Your task to perform on an android device: uninstall "HBO Max: Stream TV & Movies" Image 0: 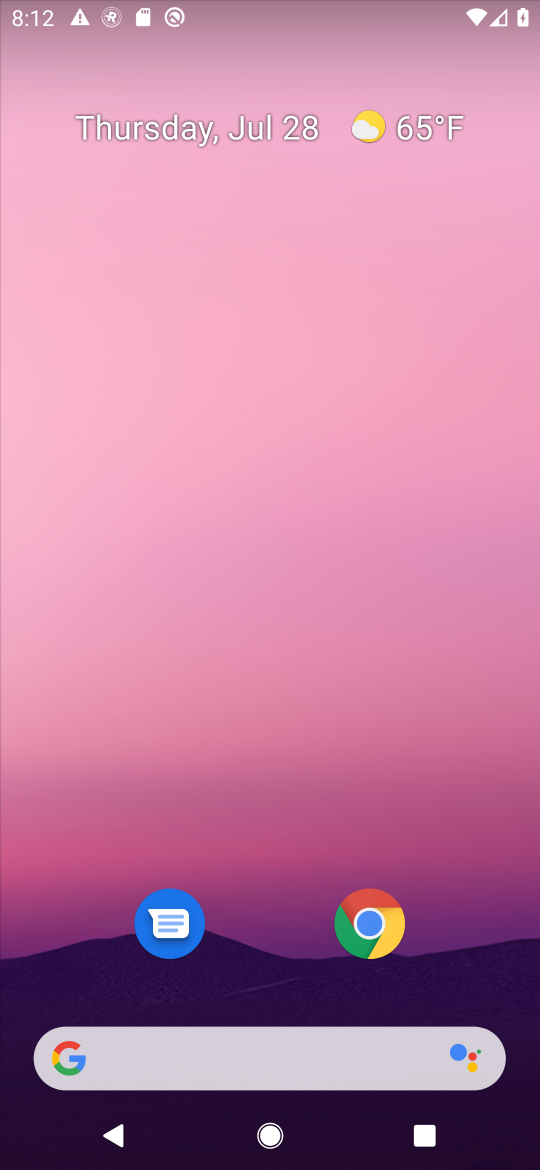
Step 0: drag from (471, 938) to (377, 187)
Your task to perform on an android device: uninstall "HBO Max: Stream TV & Movies" Image 1: 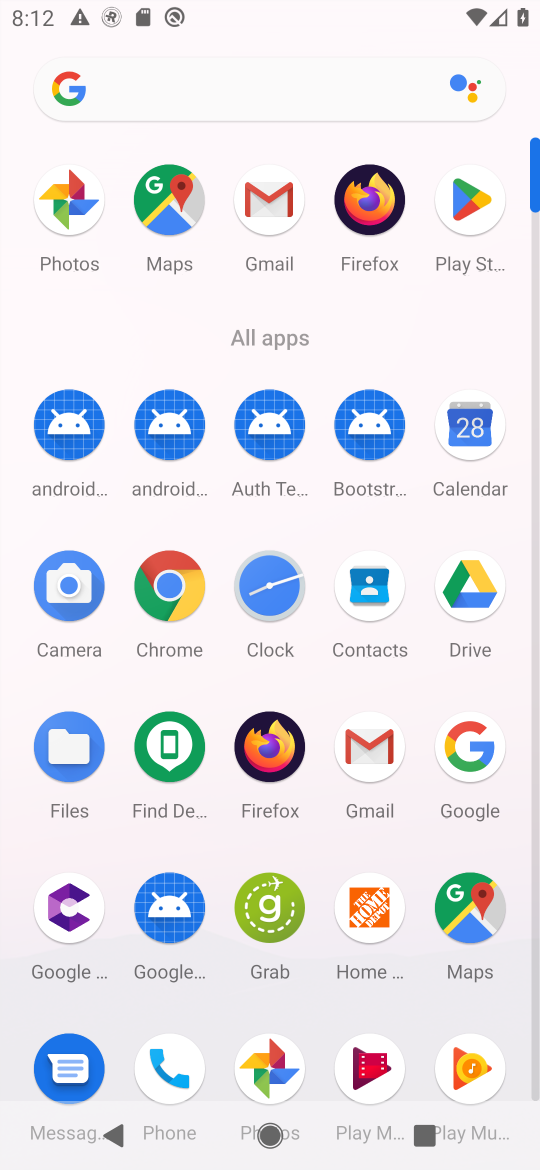
Step 1: click (457, 201)
Your task to perform on an android device: uninstall "HBO Max: Stream TV & Movies" Image 2: 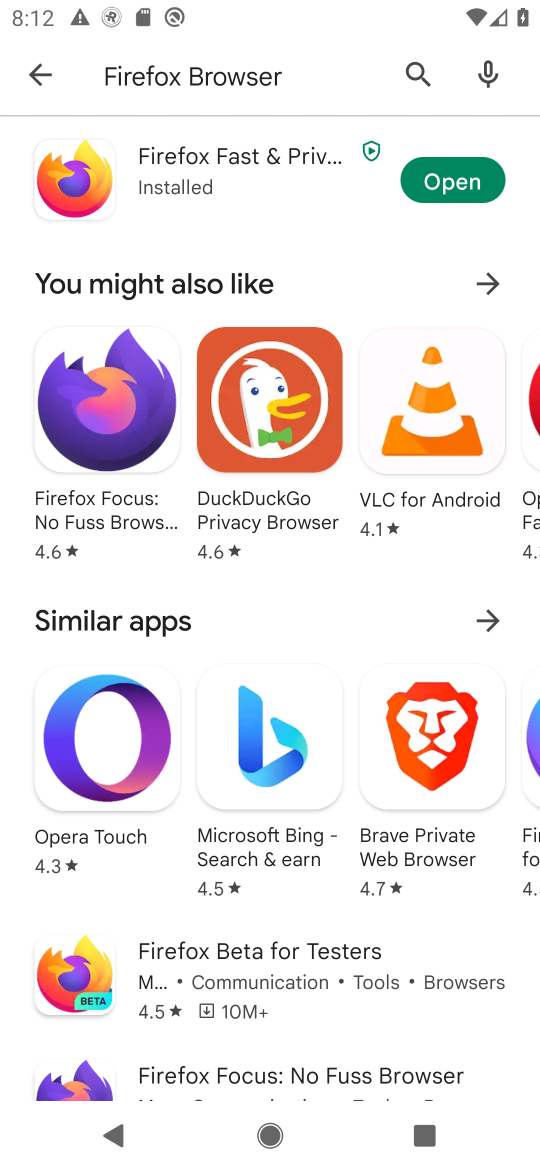
Step 2: click (299, 62)
Your task to perform on an android device: uninstall "HBO Max: Stream TV & Movies" Image 3: 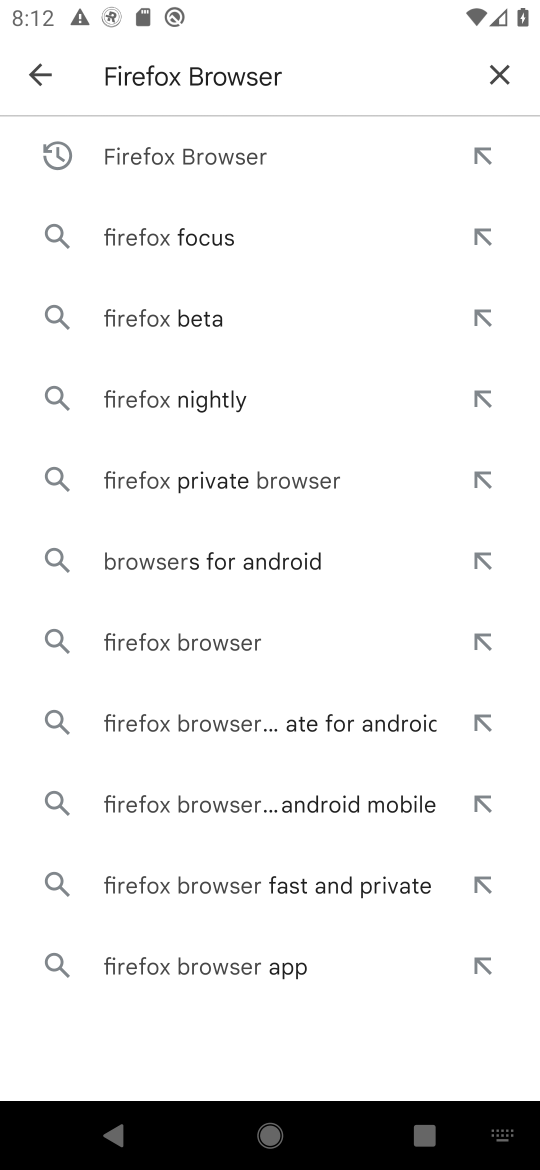
Step 3: click (497, 66)
Your task to perform on an android device: uninstall "HBO Max: Stream TV & Movies" Image 4: 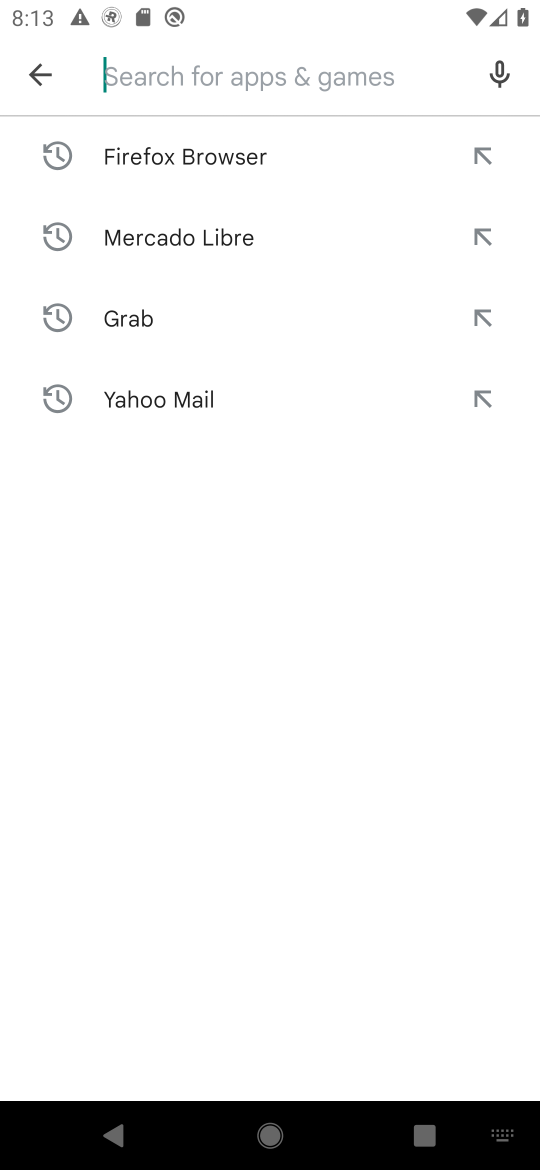
Step 4: type "HBO Max: Stream TV & Movies"
Your task to perform on an android device: uninstall "HBO Max: Stream TV & Movies" Image 5: 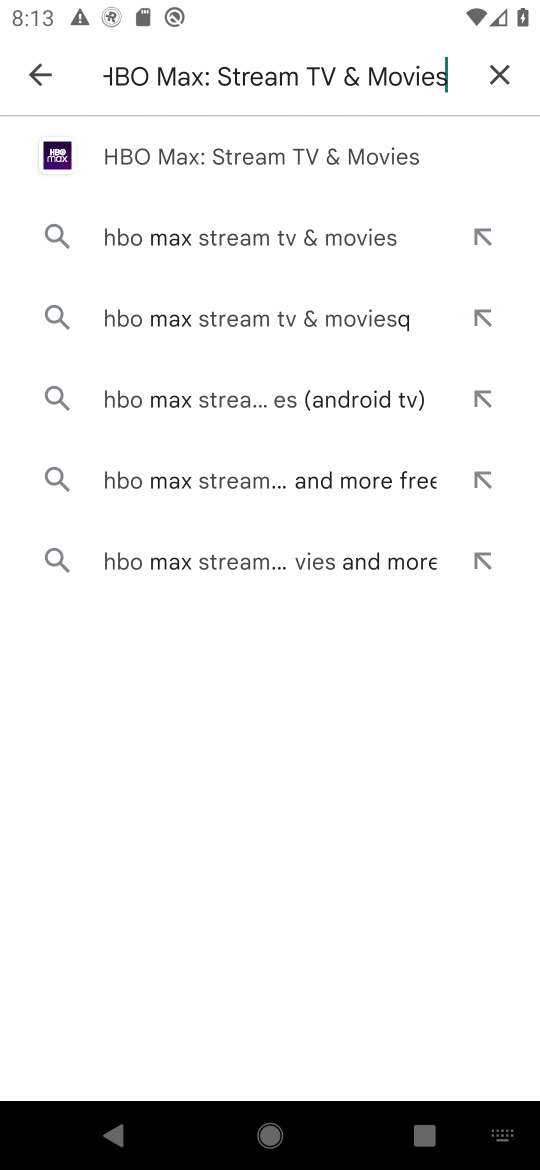
Step 5: click (92, 138)
Your task to perform on an android device: uninstall "HBO Max: Stream TV & Movies" Image 6: 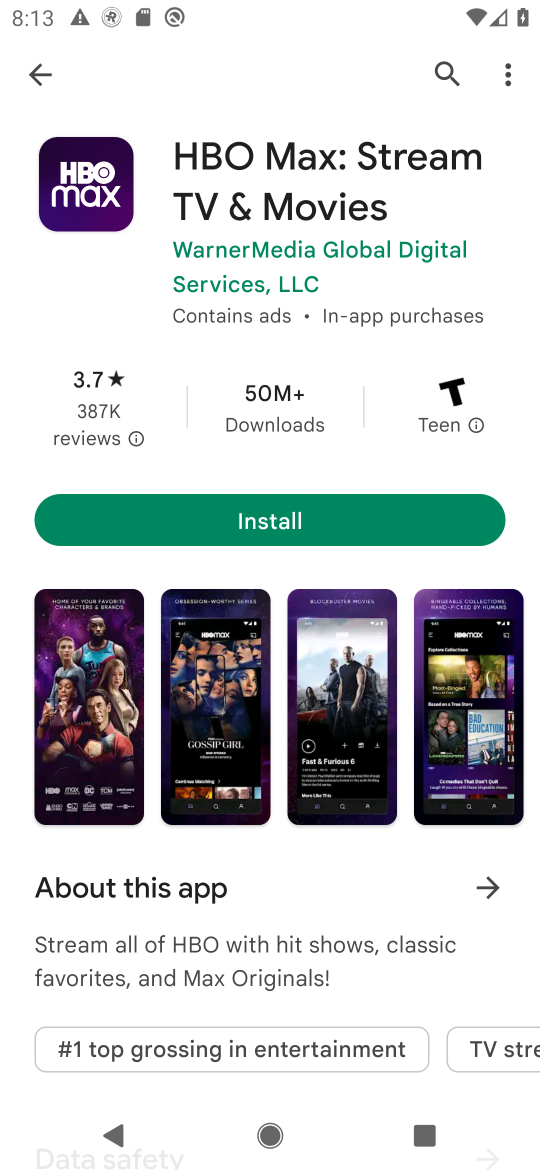
Step 6: task complete